Your task to perform on an android device: turn off airplane mode Image 0: 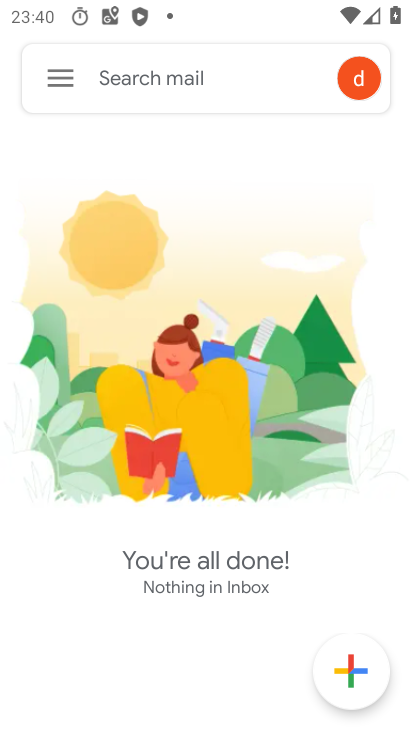
Step 0: press home button
Your task to perform on an android device: turn off airplane mode Image 1: 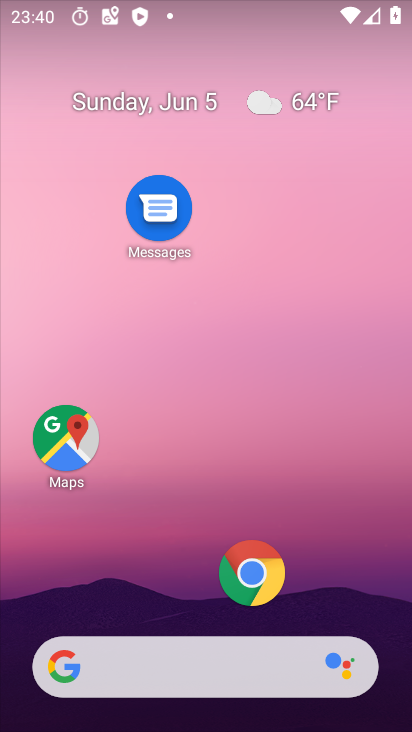
Step 1: drag from (183, 662) to (227, 10)
Your task to perform on an android device: turn off airplane mode Image 2: 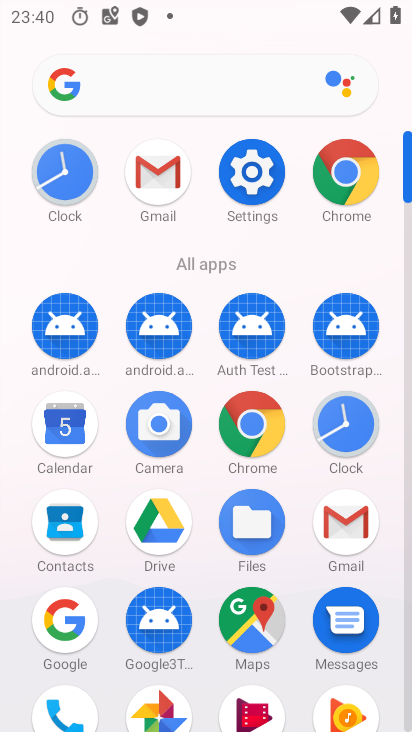
Step 2: click (242, 197)
Your task to perform on an android device: turn off airplane mode Image 3: 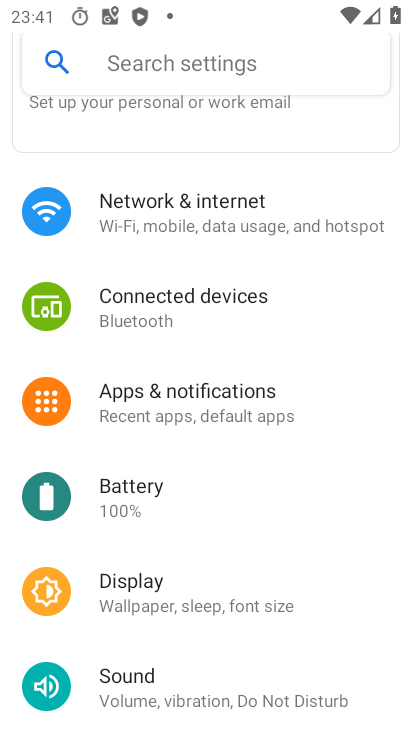
Step 3: click (153, 218)
Your task to perform on an android device: turn off airplane mode Image 4: 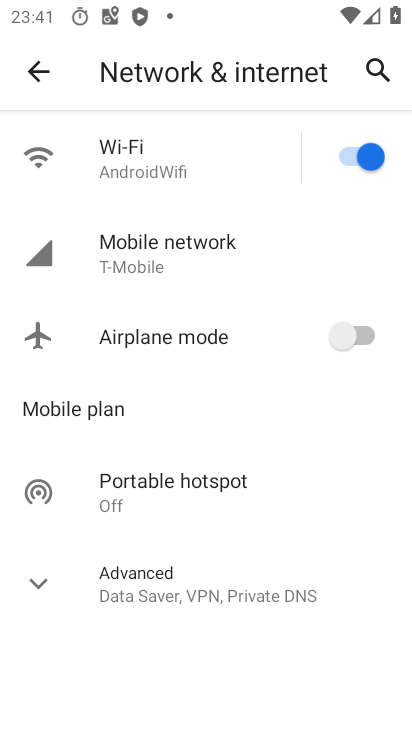
Step 4: task complete